Your task to perform on an android device: Open my contact list Image 0: 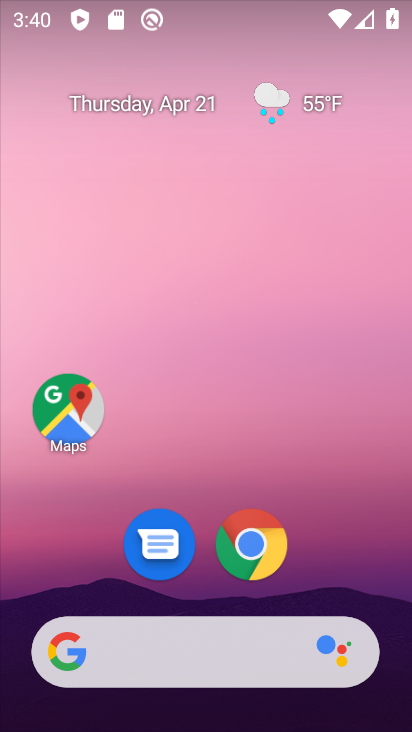
Step 0: drag from (214, 648) to (201, 29)
Your task to perform on an android device: Open my contact list Image 1: 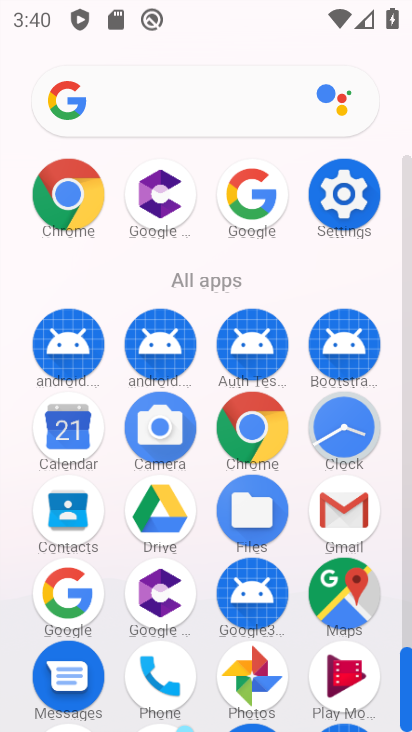
Step 1: click (89, 501)
Your task to perform on an android device: Open my contact list Image 2: 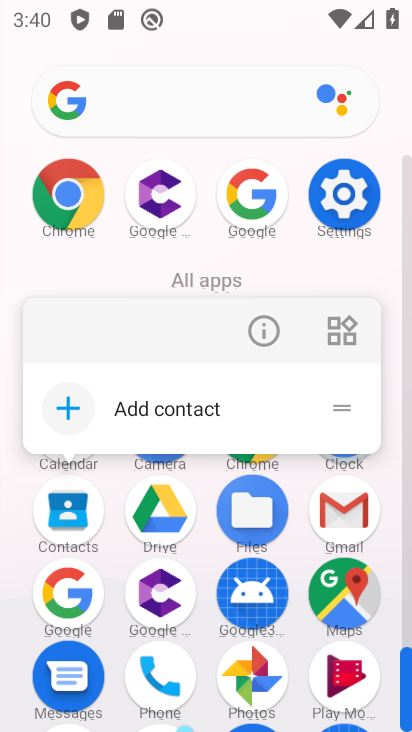
Step 2: click (65, 520)
Your task to perform on an android device: Open my contact list Image 3: 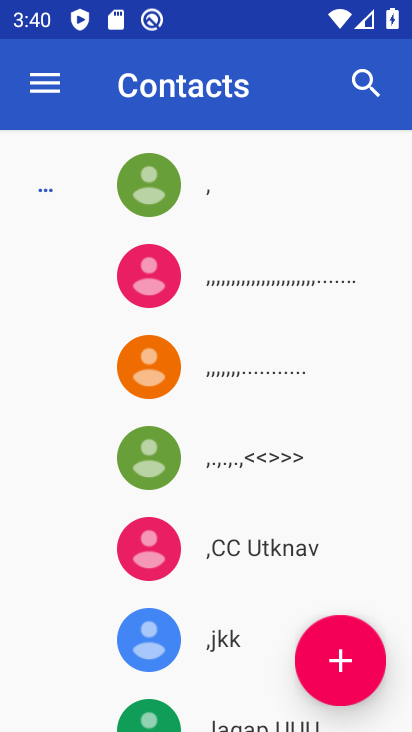
Step 3: task complete